Your task to perform on an android device: Set the phone to "Do not disturb". Image 0: 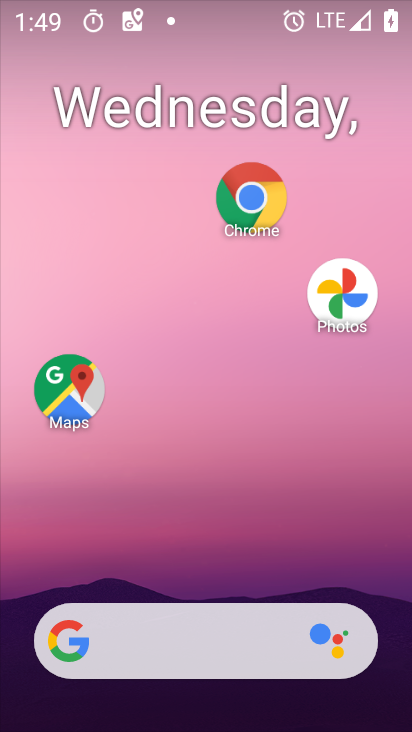
Step 0: drag from (291, 14) to (293, 410)
Your task to perform on an android device: Set the phone to "Do not disturb". Image 1: 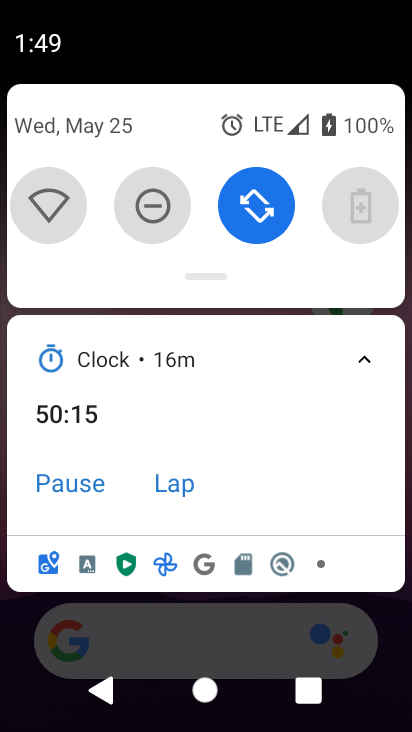
Step 1: drag from (230, 264) to (329, 728)
Your task to perform on an android device: Set the phone to "Do not disturb". Image 2: 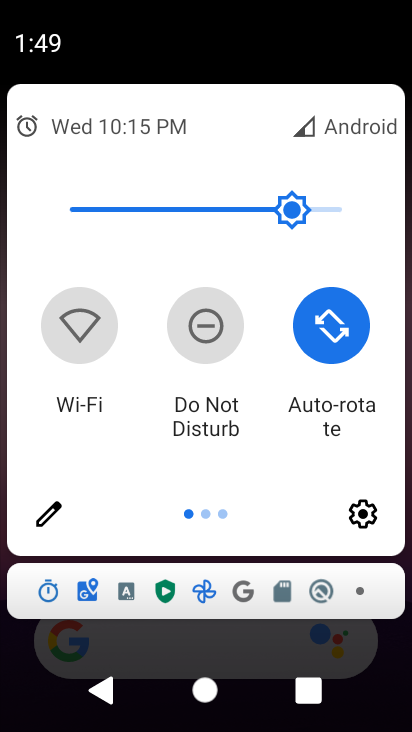
Step 2: drag from (318, 417) to (45, 417)
Your task to perform on an android device: Set the phone to "Do not disturb". Image 3: 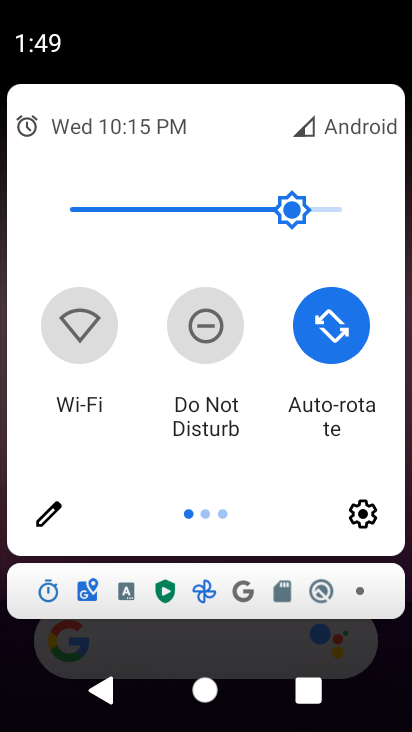
Step 3: click (210, 347)
Your task to perform on an android device: Set the phone to "Do not disturb". Image 4: 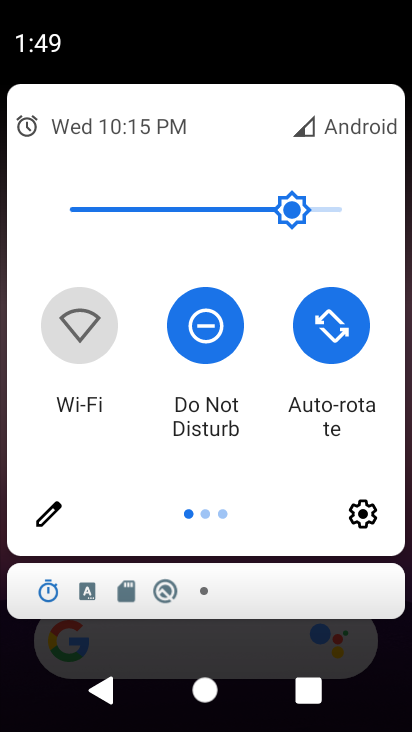
Step 4: task complete